Your task to perform on an android device: open sync settings in chrome Image 0: 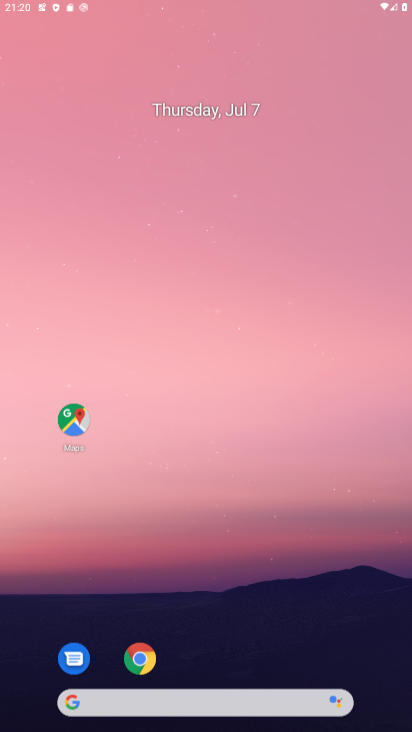
Step 0: click (271, 14)
Your task to perform on an android device: open sync settings in chrome Image 1: 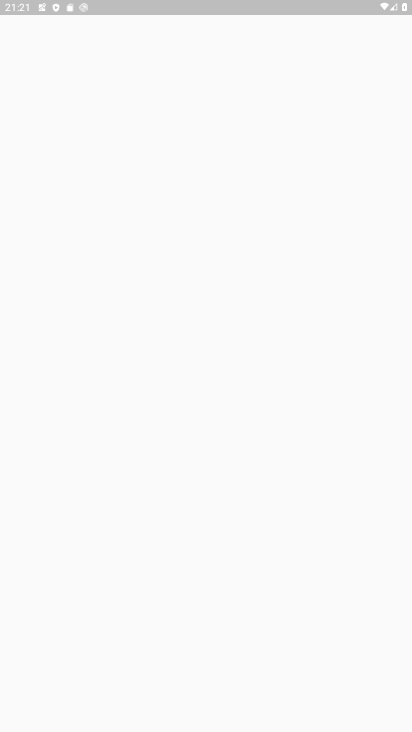
Step 1: press home button
Your task to perform on an android device: open sync settings in chrome Image 2: 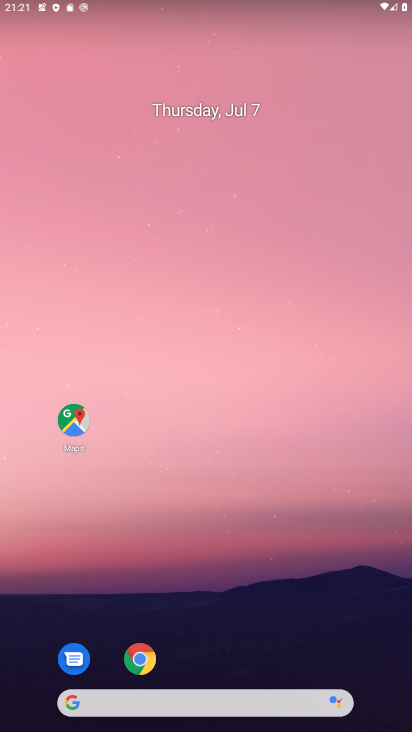
Step 2: drag from (232, 645) to (209, 11)
Your task to perform on an android device: open sync settings in chrome Image 3: 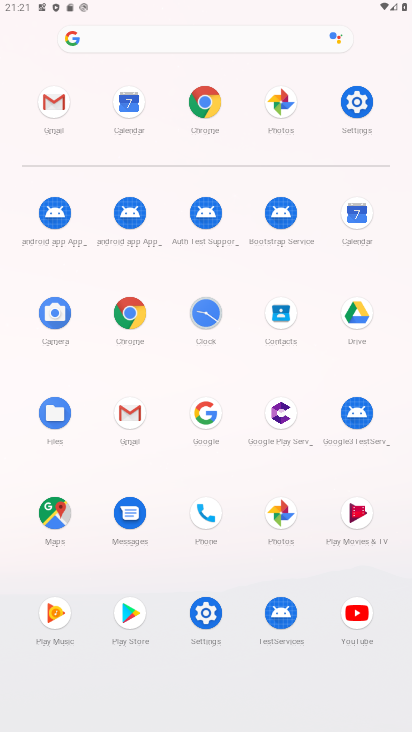
Step 3: click (126, 306)
Your task to perform on an android device: open sync settings in chrome Image 4: 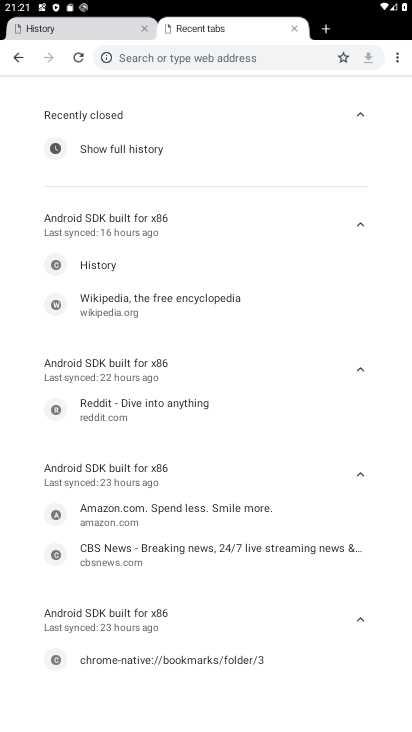
Step 4: click (14, 62)
Your task to perform on an android device: open sync settings in chrome Image 5: 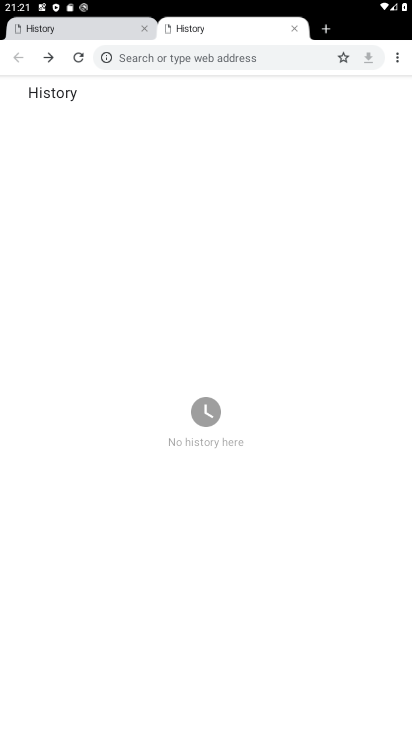
Step 5: click (396, 53)
Your task to perform on an android device: open sync settings in chrome Image 6: 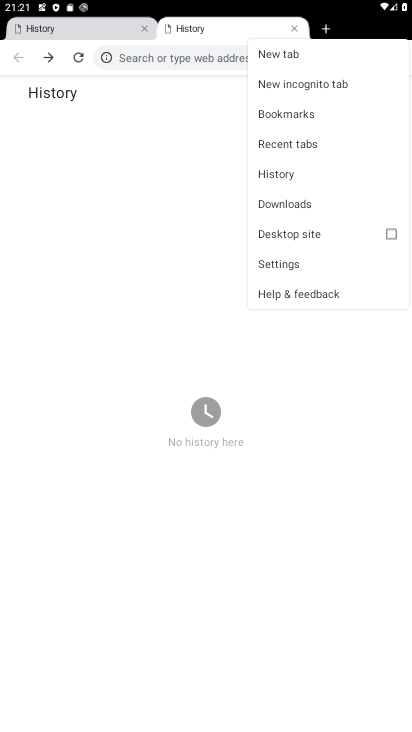
Step 6: click (285, 261)
Your task to perform on an android device: open sync settings in chrome Image 7: 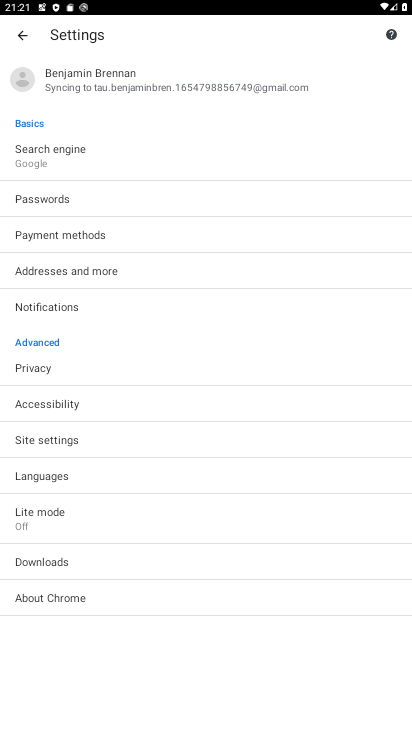
Step 7: click (149, 85)
Your task to perform on an android device: open sync settings in chrome Image 8: 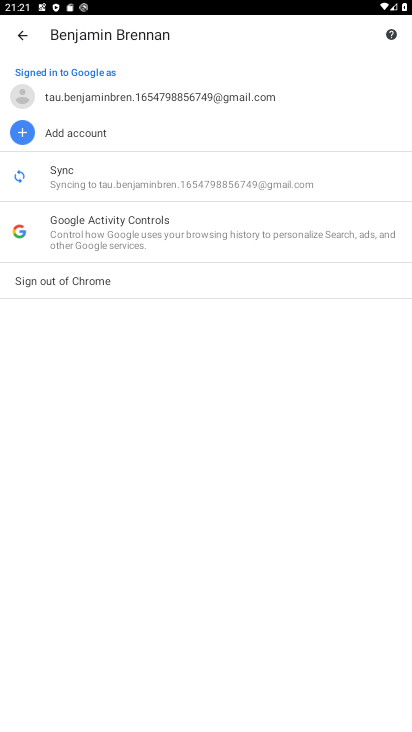
Step 8: task complete